Your task to perform on an android device: change text size in settings app Image 0: 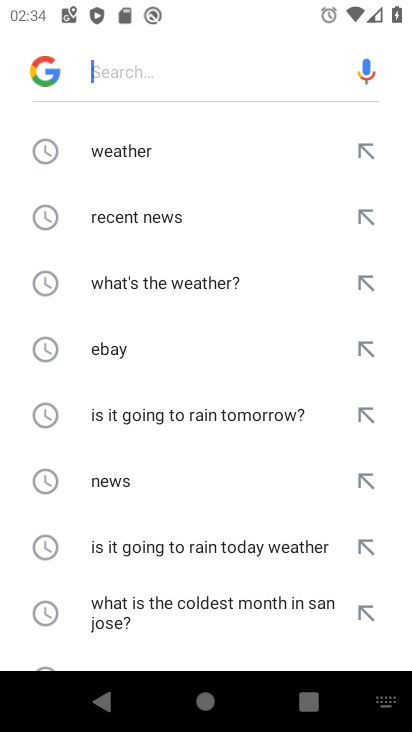
Step 0: press home button
Your task to perform on an android device: change text size in settings app Image 1: 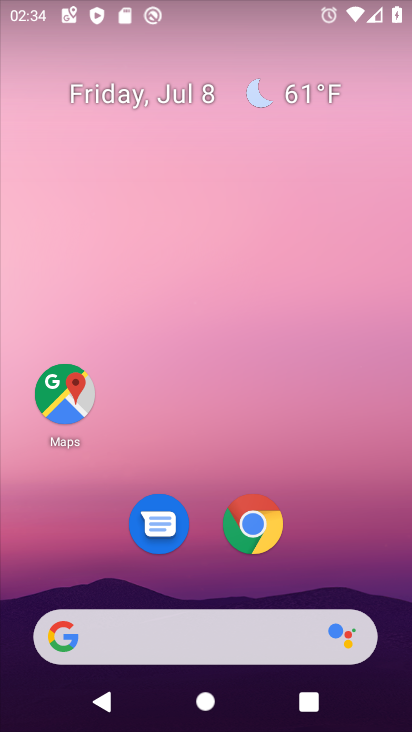
Step 1: drag from (337, 533) to (366, 68)
Your task to perform on an android device: change text size in settings app Image 2: 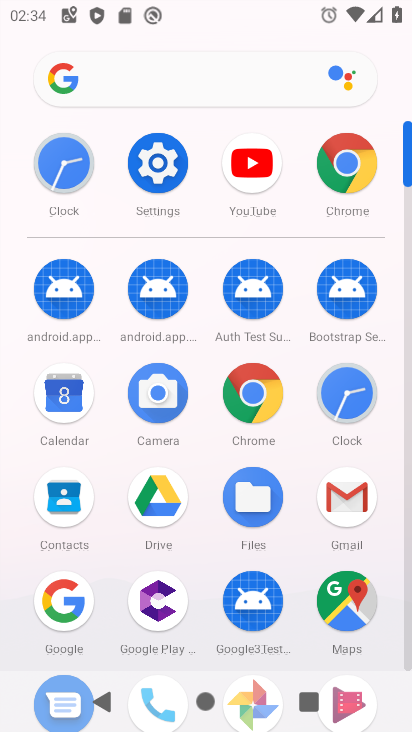
Step 2: click (150, 156)
Your task to perform on an android device: change text size in settings app Image 3: 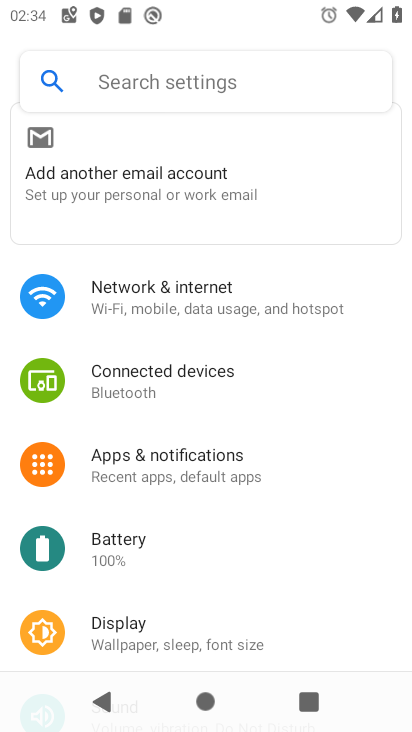
Step 3: click (191, 633)
Your task to perform on an android device: change text size in settings app Image 4: 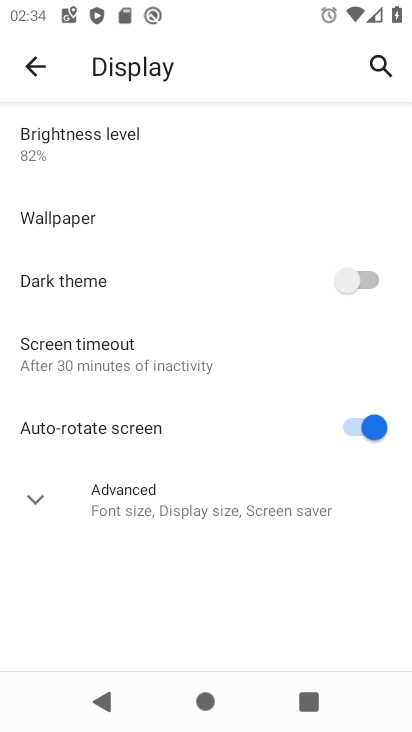
Step 4: click (30, 494)
Your task to perform on an android device: change text size in settings app Image 5: 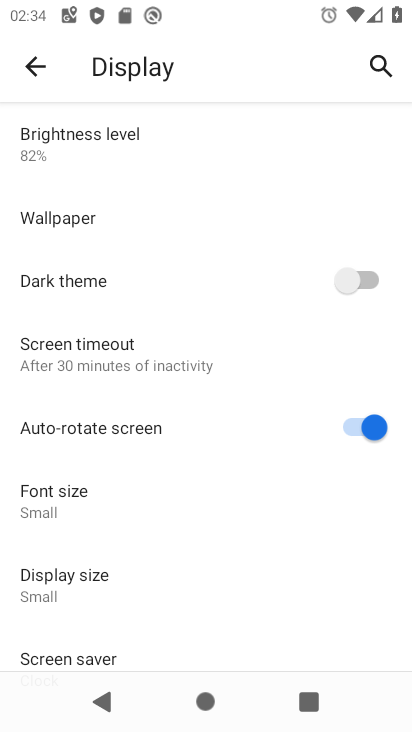
Step 5: click (66, 505)
Your task to perform on an android device: change text size in settings app Image 6: 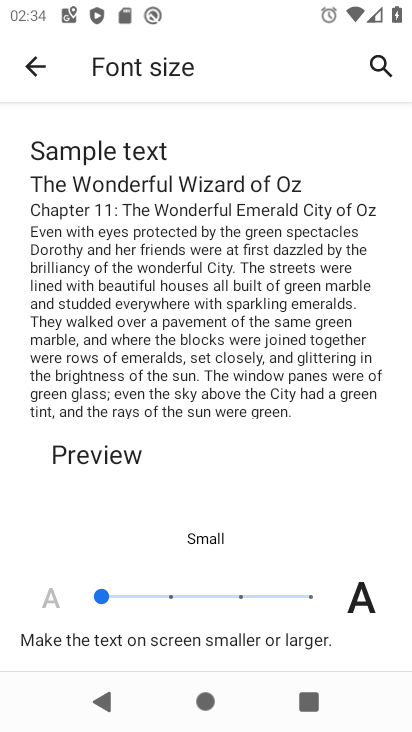
Step 6: click (174, 597)
Your task to perform on an android device: change text size in settings app Image 7: 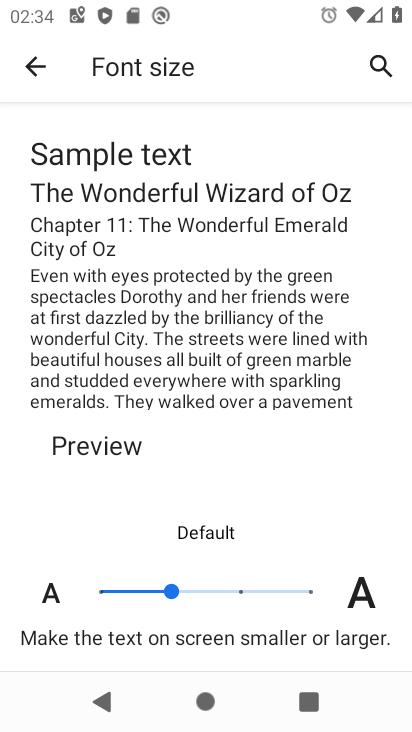
Step 7: click (31, 60)
Your task to perform on an android device: change text size in settings app Image 8: 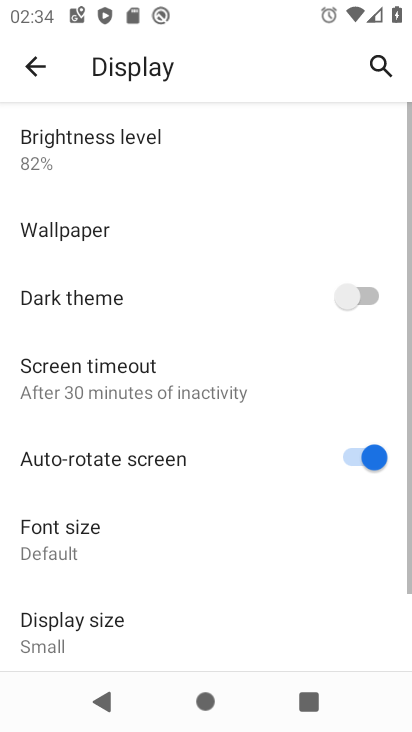
Step 8: task complete